Your task to perform on an android device: Go to privacy settings Image 0: 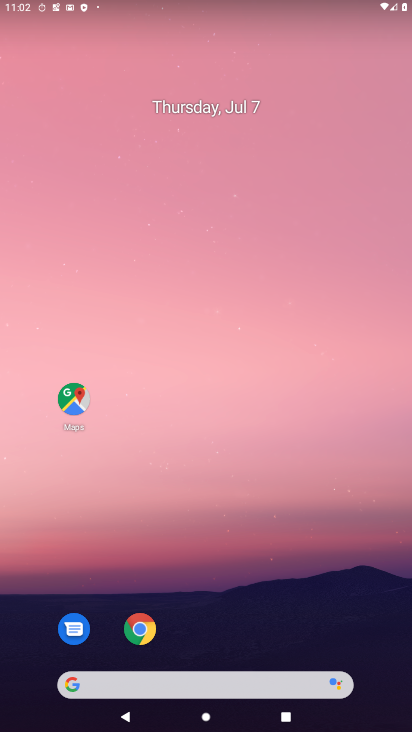
Step 0: drag from (329, 640) to (302, 158)
Your task to perform on an android device: Go to privacy settings Image 1: 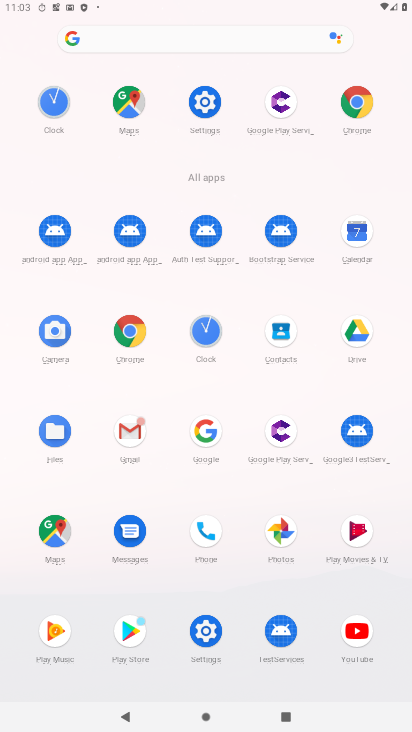
Step 1: click (217, 95)
Your task to perform on an android device: Go to privacy settings Image 2: 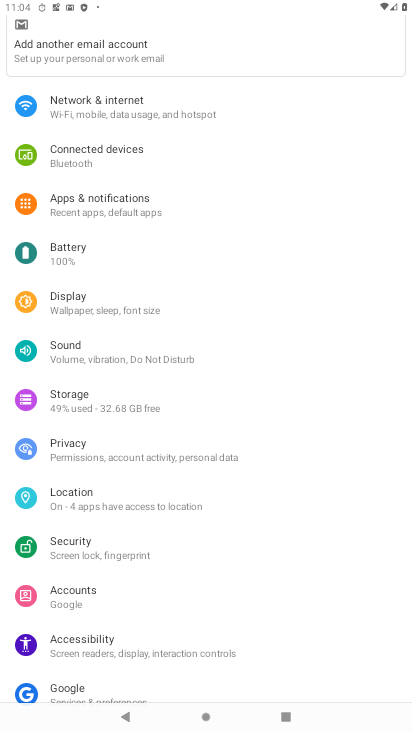
Step 2: click (90, 448)
Your task to perform on an android device: Go to privacy settings Image 3: 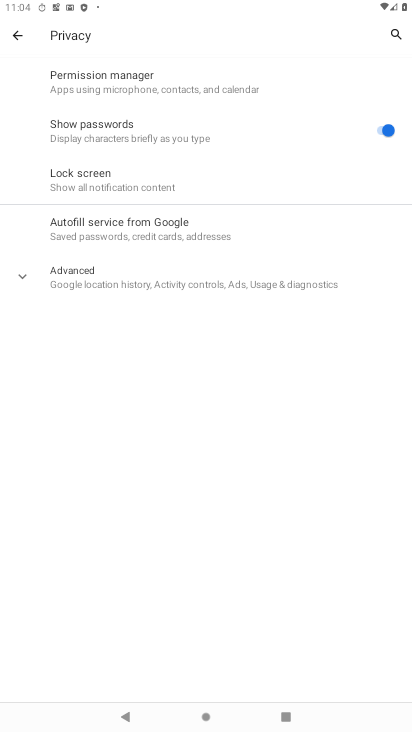
Step 3: task complete